Your task to perform on an android device: check battery use Image 0: 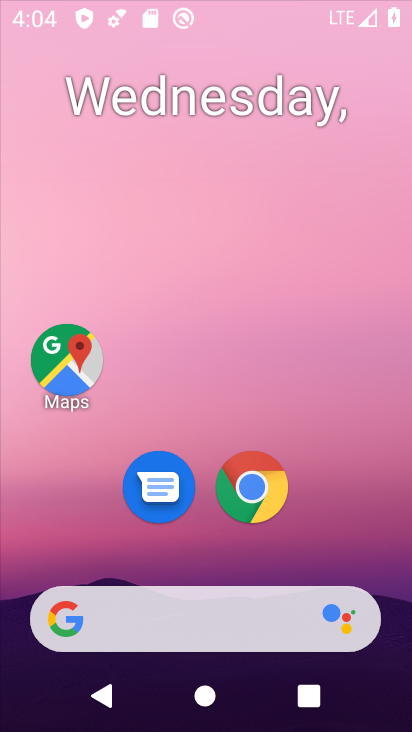
Step 0: click (365, 638)
Your task to perform on an android device: check battery use Image 1: 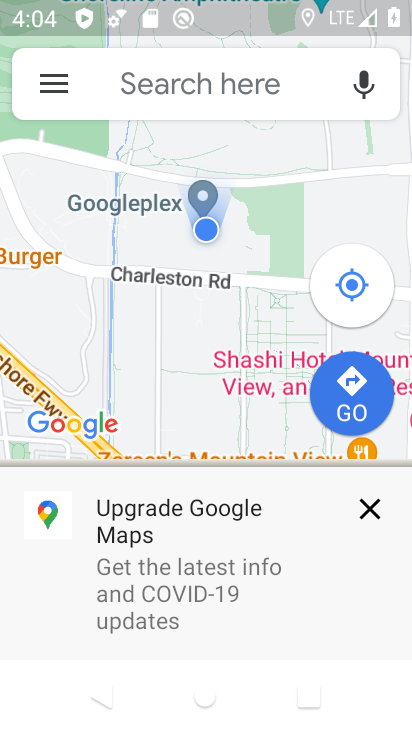
Step 1: press home button
Your task to perform on an android device: check battery use Image 2: 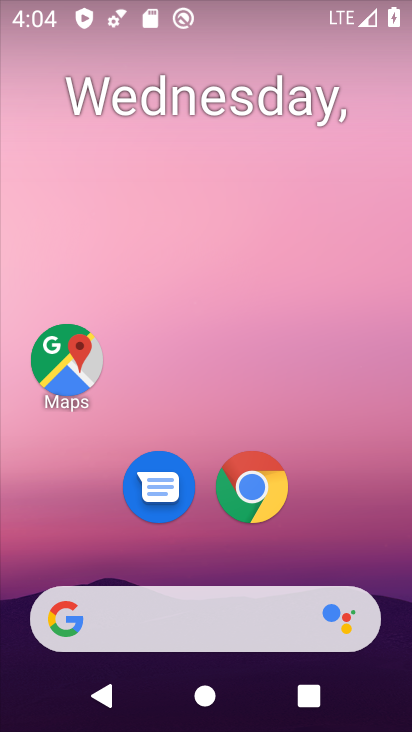
Step 2: drag from (354, 574) to (390, 7)
Your task to perform on an android device: check battery use Image 3: 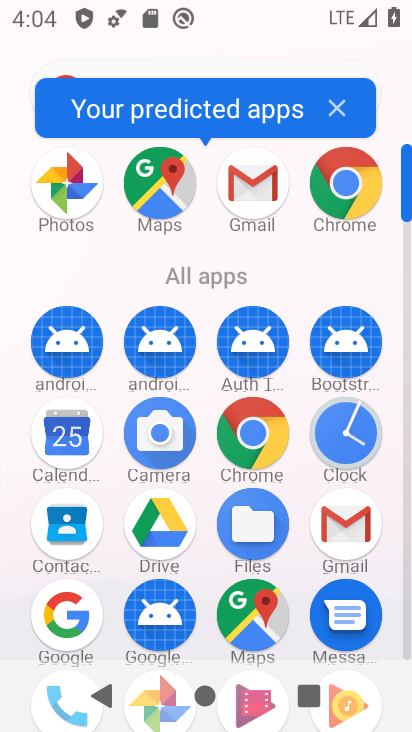
Step 3: drag from (280, 280) to (287, 10)
Your task to perform on an android device: check battery use Image 4: 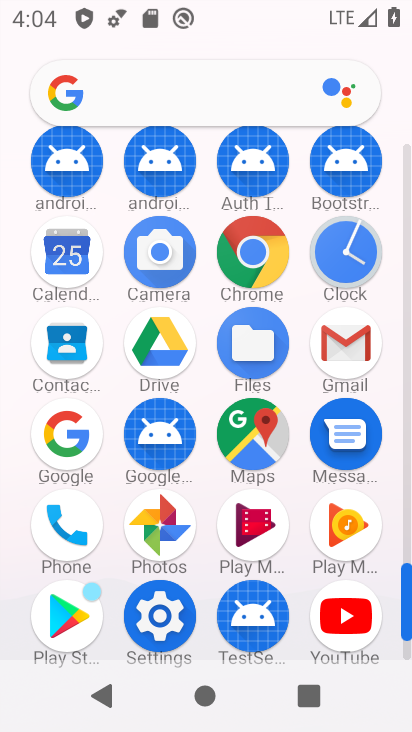
Step 4: click (175, 643)
Your task to perform on an android device: check battery use Image 5: 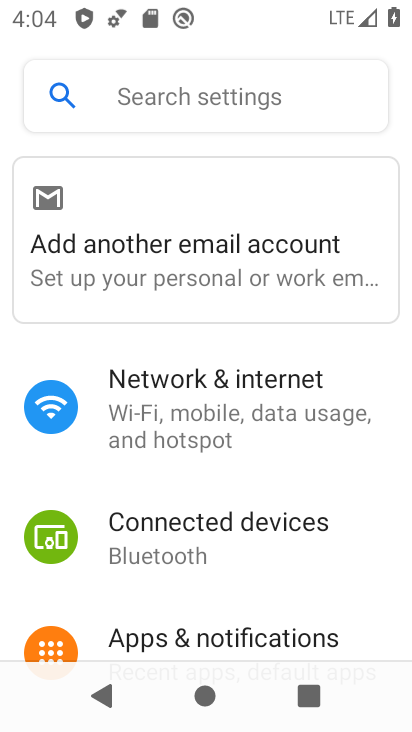
Step 5: drag from (223, 610) to (219, 288)
Your task to perform on an android device: check battery use Image 6: 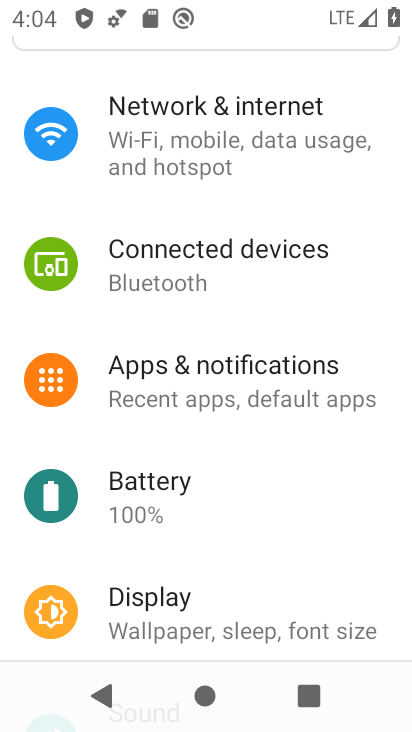
Step 6: click (196, 542)
Your task to perform on an android device: check battery use Image 7: 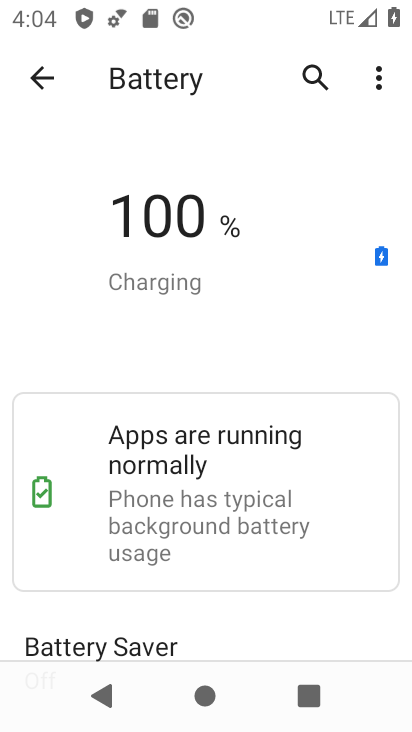
Step 7: click (390, 83)
Your task to perform on an android device: check battery use Image 8: 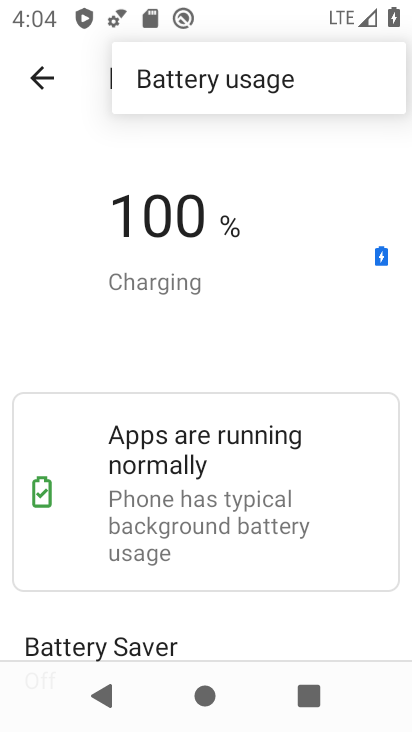
Step 8: click (304, 79)
Your task to perform on an android device: check battery use Image 9: 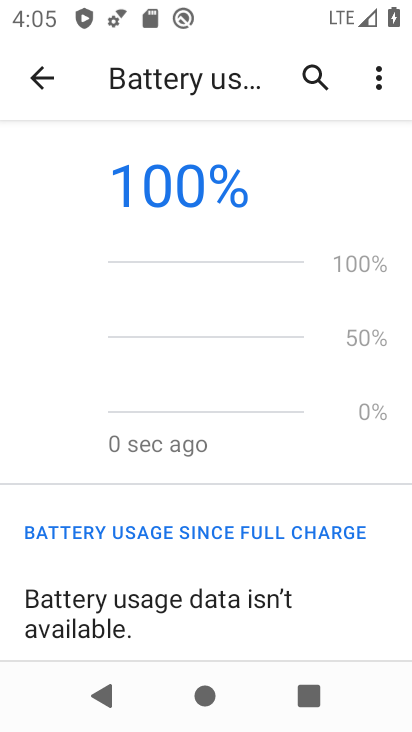
Step 9: task complete